Your task to perform on an android device: allow notifications from all sites in the chrome app Image 0: 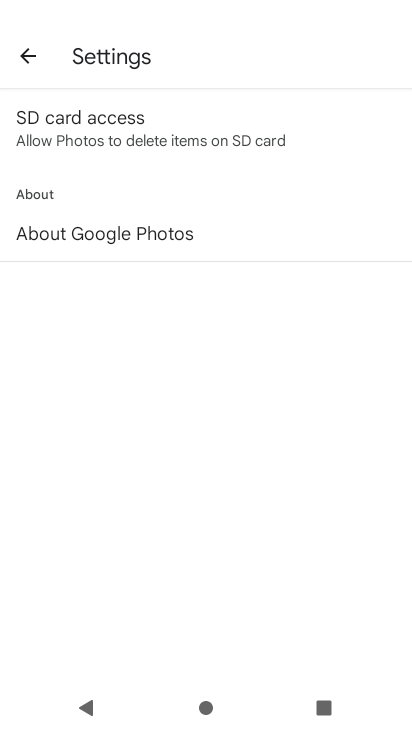
Step 0: press home button
Your task to perform on an android device: allow notifications from all sites in the chrome app Image 1: 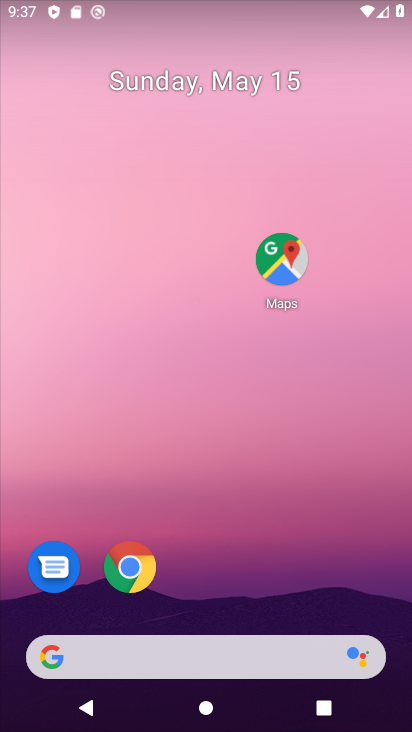
Step 1: click (133, 569)
Your task to perform on an android device: allow notifications from all sites in the chrome app Image 2: 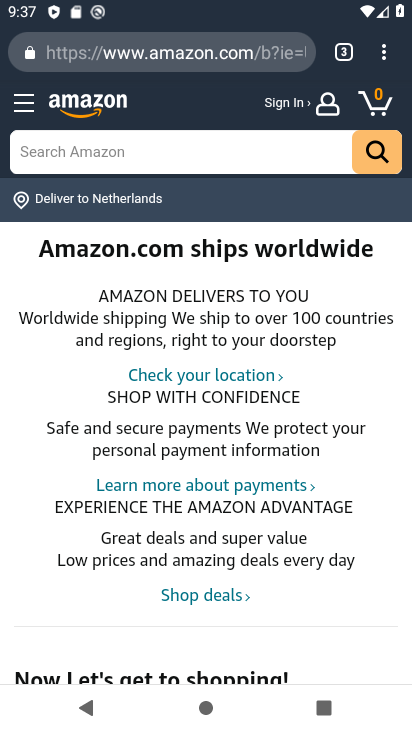
Step 2: click (379, 58)
Your task to perform on an android device: allow notifications from all sites in the chrome app Image 3: 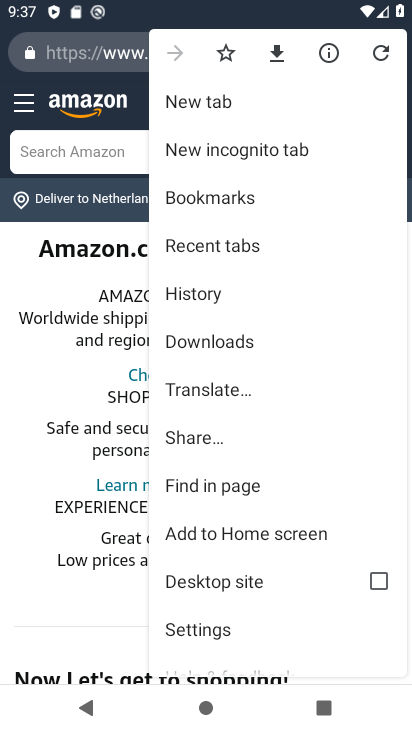
Step 3: click (227, 633)
Your task to perform on an android device: allow notifications from all sites in the chrome app Image 4: 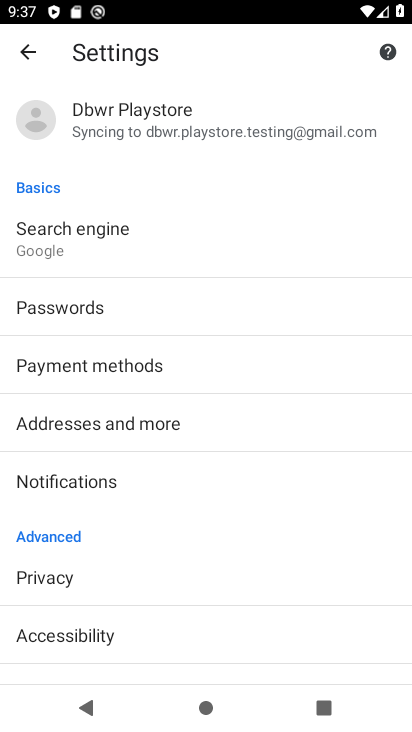
Step 4: drag from (139, 597) to (116, 273)
Your task to perform on an android device: allow notifications from all sites in the chrome app Image 5: 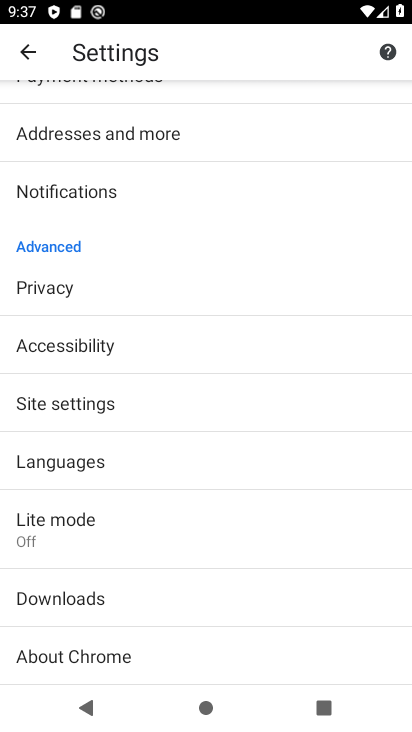
Step 5: click (68, 394)
Your task to perform on an android device: allow notifications from all sites in the chrome app Image 6: 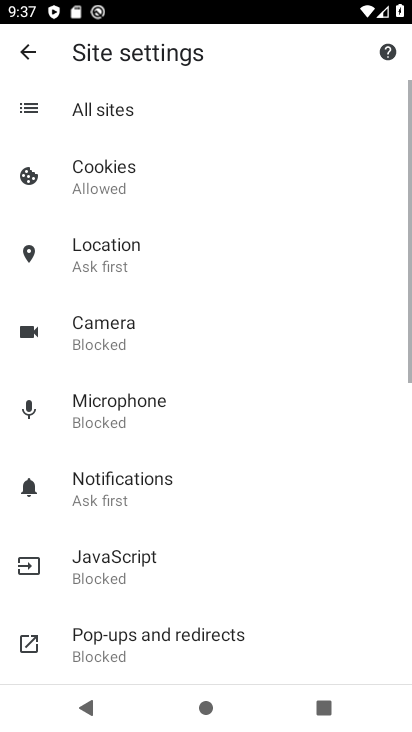
Step 6: click (247, 563)
Your task to perform on an android device: allow notifications from all sites in the chrome app Image 7: 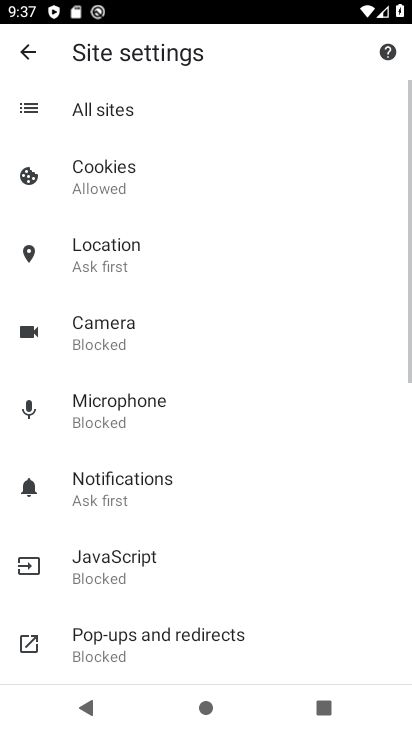
Step 7: click (164, 476)
Your task to perform on an android device: allow notifications from all sites in the chrome app Image 8: 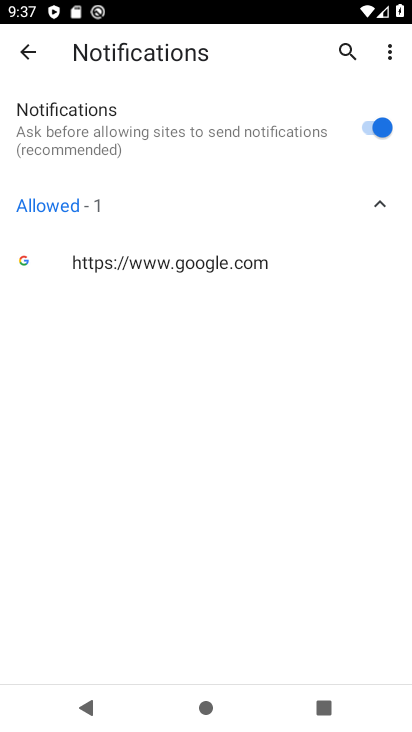
Step 8: task complete